Your task to perform on an android device: Open Android settings Image 0: 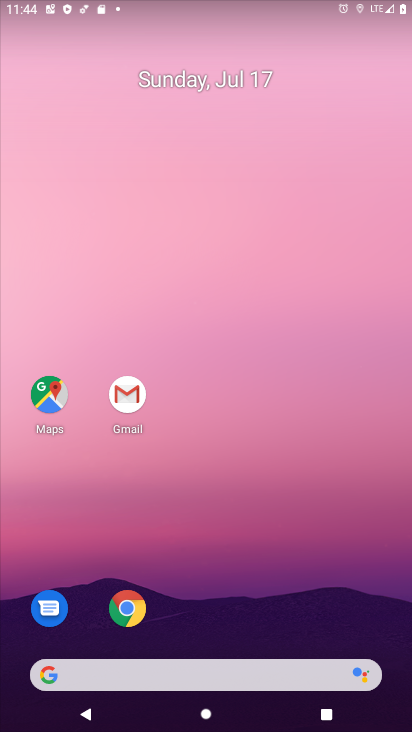
Step 0: drag from (214, 641) to (156, 29)
Your task to perform on an android device: Open Android settings Image 1: 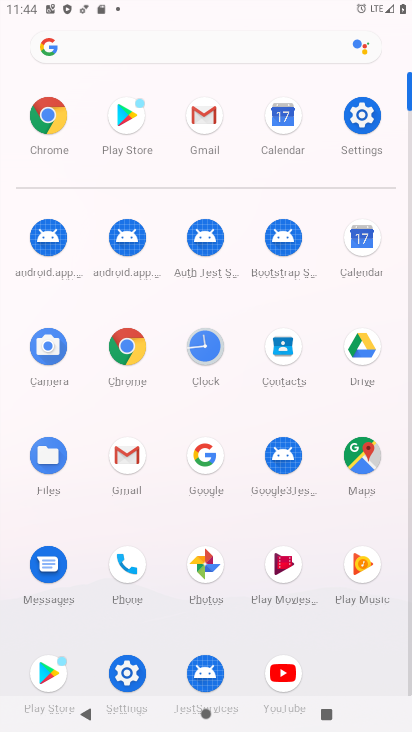
Step 1: click (137, 673)
Your task to perform on an android device: Open Android settings Image 2: 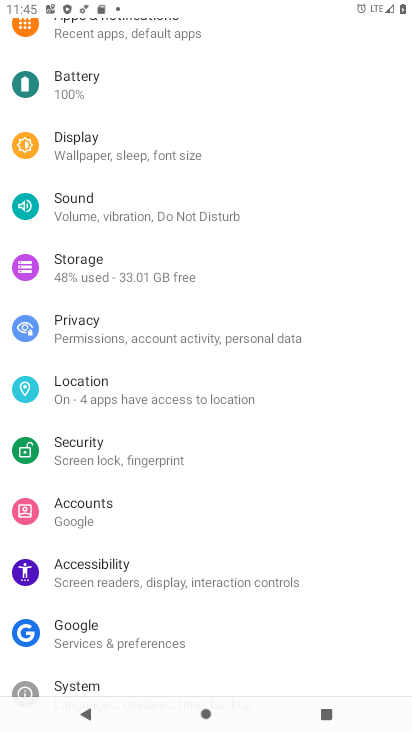
Step 2: task complete